Your task to perform on an android device: open wifi settings Image 0: 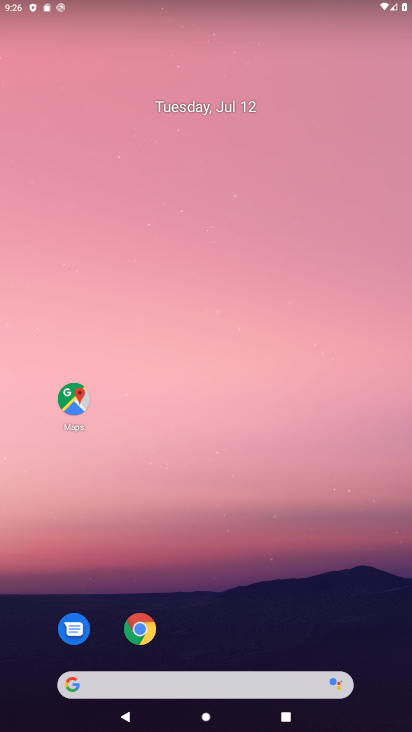
Step 0: drag from (184, 684) to (158, 99)
Your task to perform on an android device: open wifi settings Image 1: 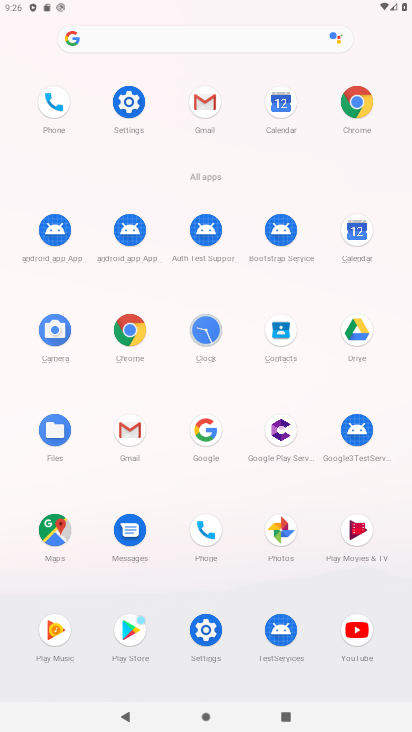
Step 1: click (136, 99)
Your task to perform on an android device: open wifi settings Image 2: 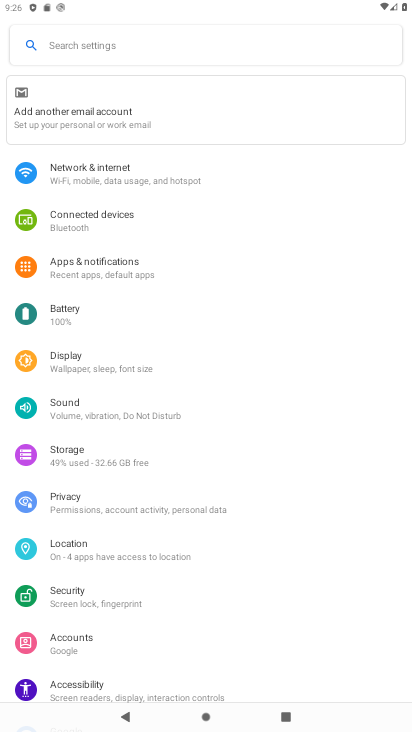
Step 2: click (121, 182)
Your task to perform on an android device: open wifi settings Image 3: 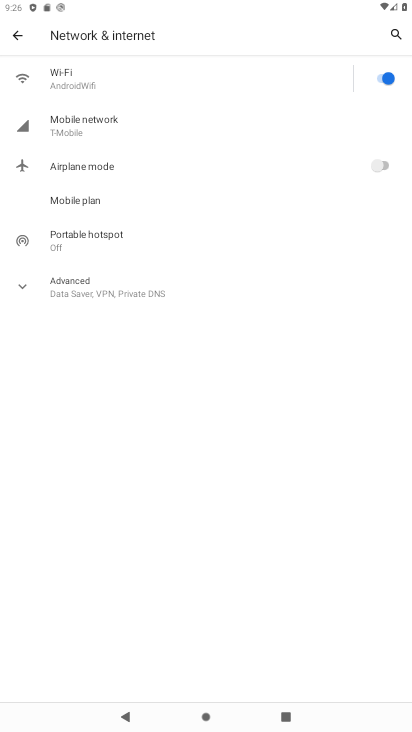
Step 3: click (89, 82)
Your task to perform on an android device: open wifi settings Image 4: 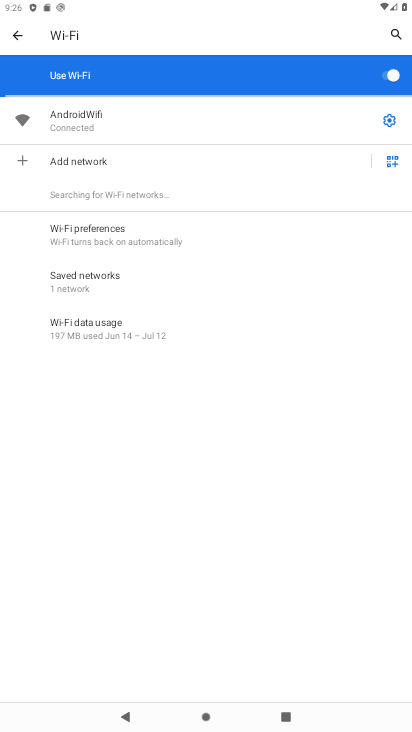
Step 4: task complete